Your task to perform on an android device: Go to Wikipedia Image 0: 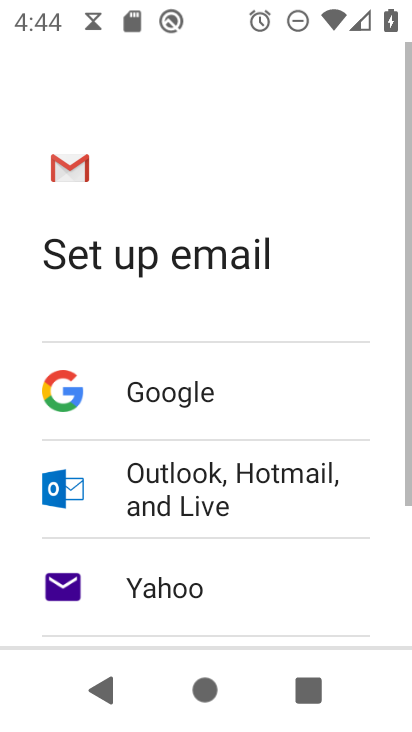
Step 0: press home button
Your task to perform on an android device: Go to Wikipedia Image 1: 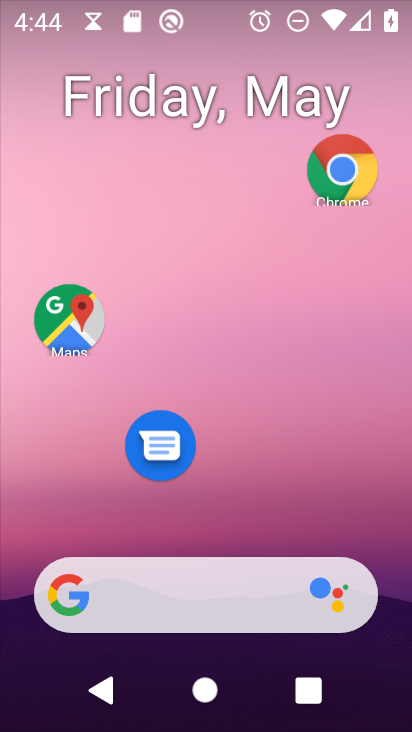
Step 1: click (349, 169)
Your task to perform on an android device: Go to Wikipedia Image 2: 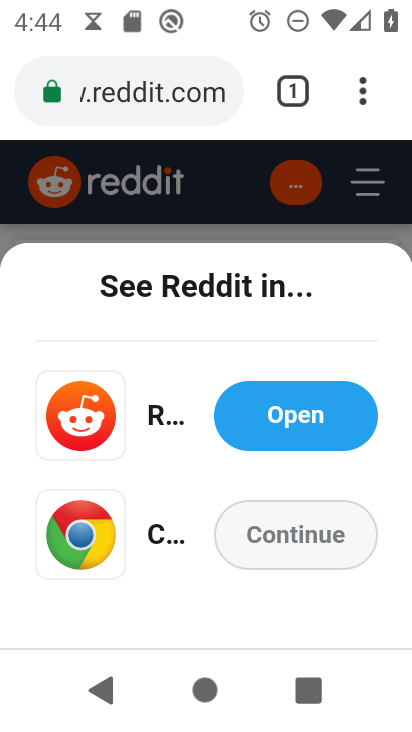
Step 2: click (128, 87)
Your task to perform on an android device: Go to Wikipedia Image 3: 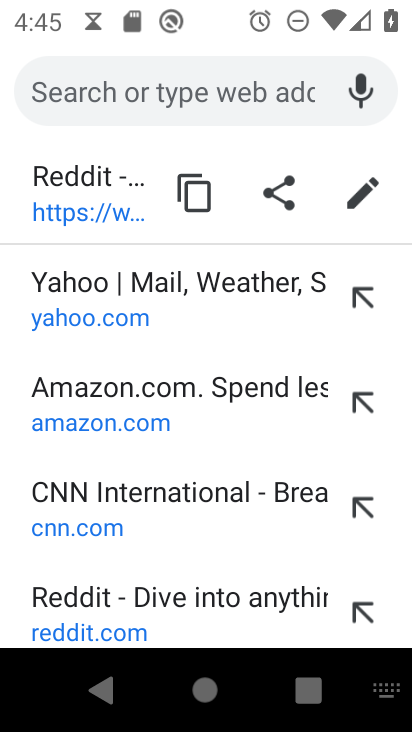
Step 3: type "www.wikipedia.com"
Your task to perform on an android device: Go to Wikipedia Image 4: 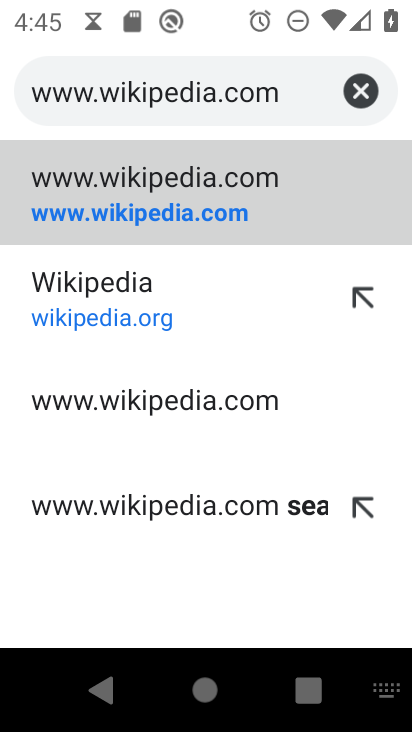
Step 4: click (190, 221)
Your task to perform on an android device: Go to Wikipedia Image 5: 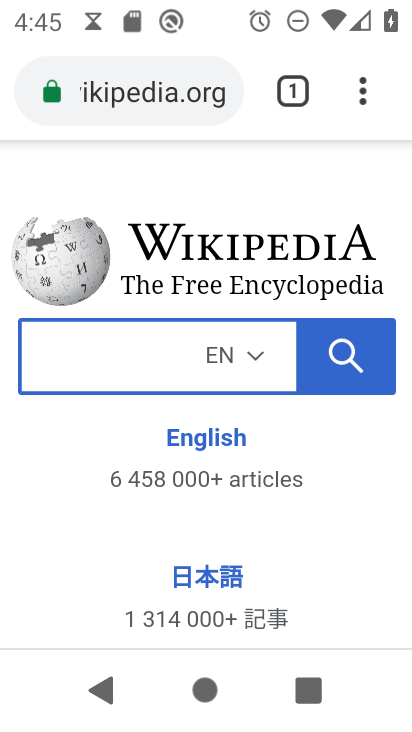
Step 5: task complete